Your task to perform on an android device: When is my next meeting? Image 0: 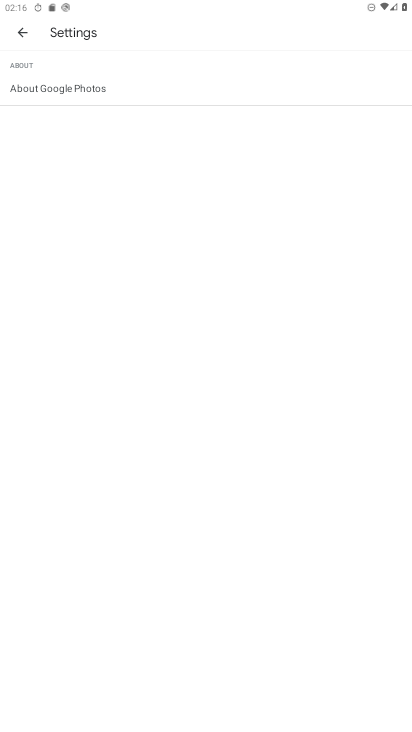
Step 0: press home button
Your task to perform on an android device: When is my next meeting? Image 1: 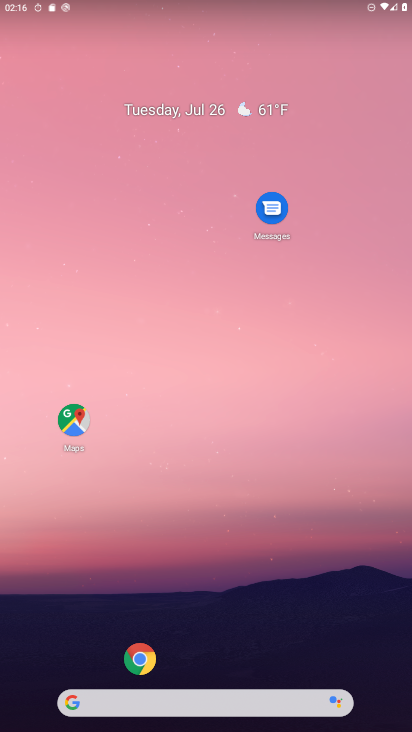
Step 1: click (143, 687)
Your task to perform on an android device: When is my next meeting? Image 2: 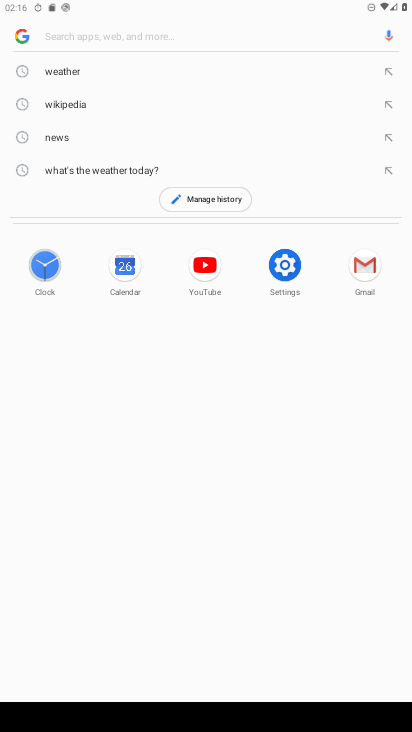
Step 2: type "When is my next meeting?"
Your task to perform on an android device: When is my next meeting? Image 3: 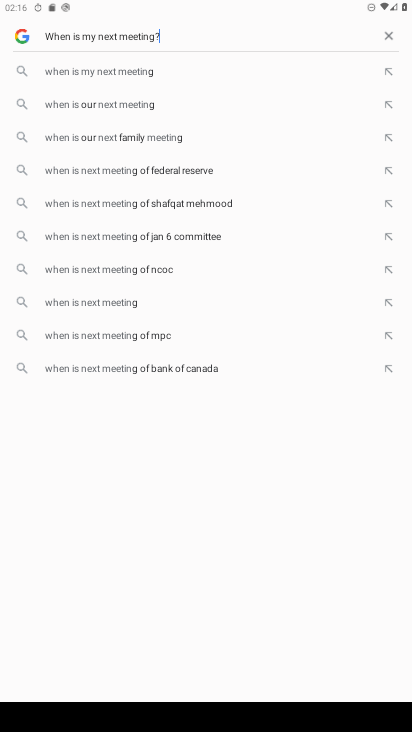
Step 3: type ""
Your task to perform on an android device: When is my next meeting? Image 4: 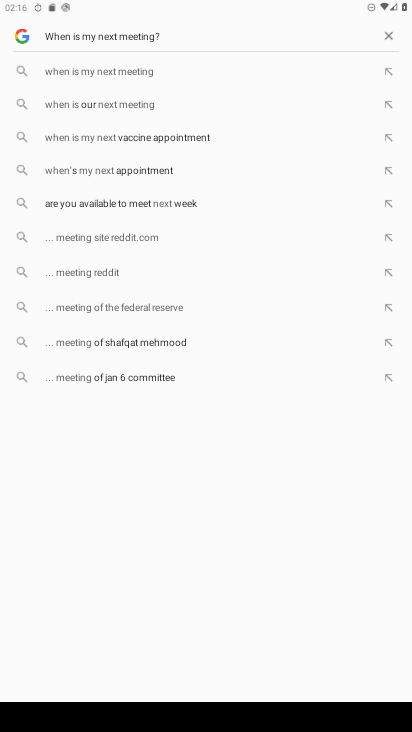
Step 4: click (113, 65)
Your task to perform on an android device: When is my next meeting? Image 5: 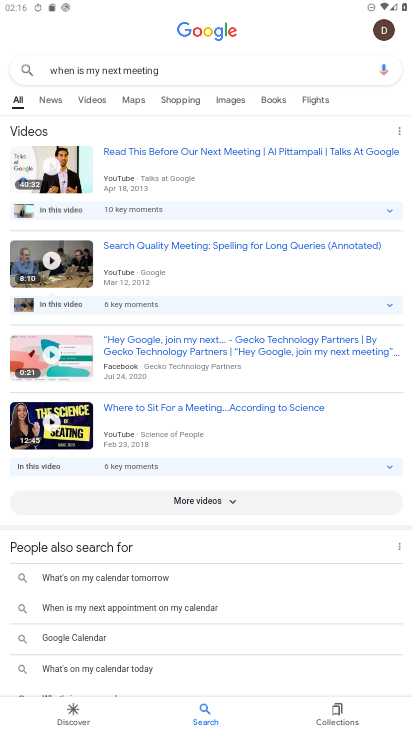
Step 5: task complete